Your task to perform on an android device: change alarm snooze length Image 0: 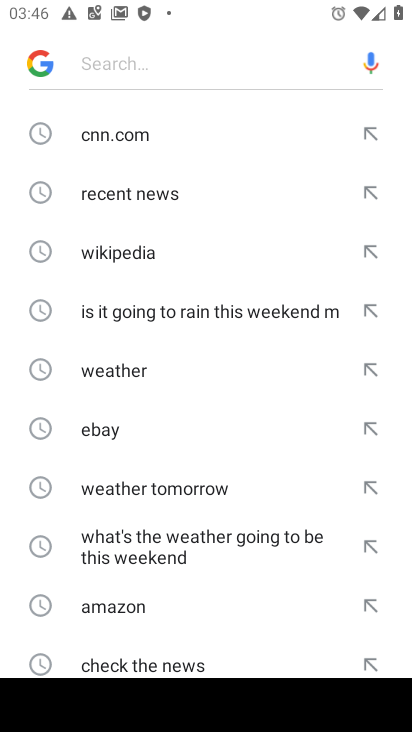
Step 0: press home button
Your task to perform on an android device: change alarm snooze length Image 1: 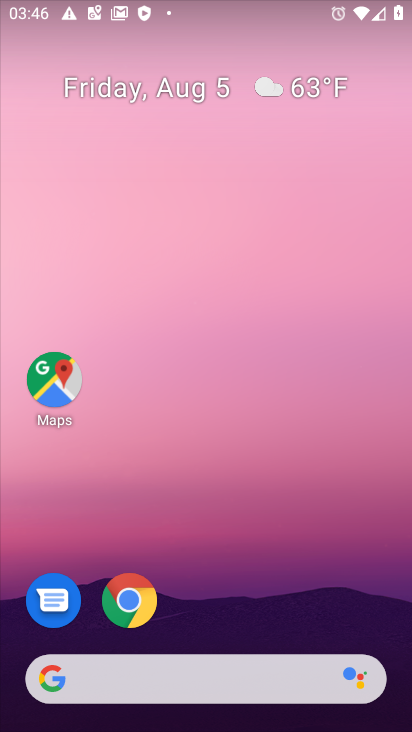
Step 1: drag from (190, 679) to (281, 130)
Your task to perform on an android device: change alarm snooze length Image 2: 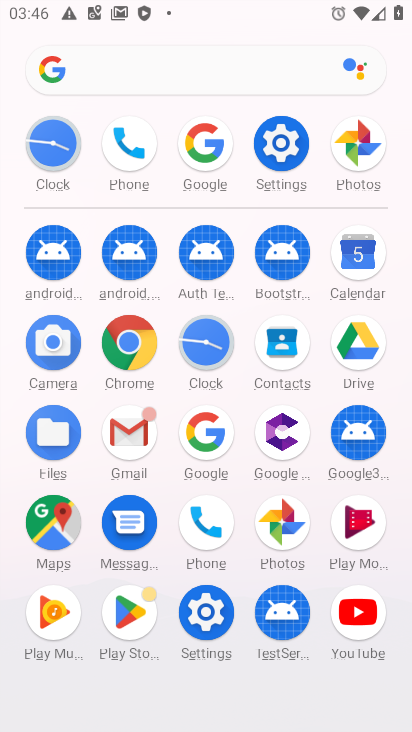
Step 2: click (55, 144)
Your task to perform on an android device: change alarm snooze length Image 3: 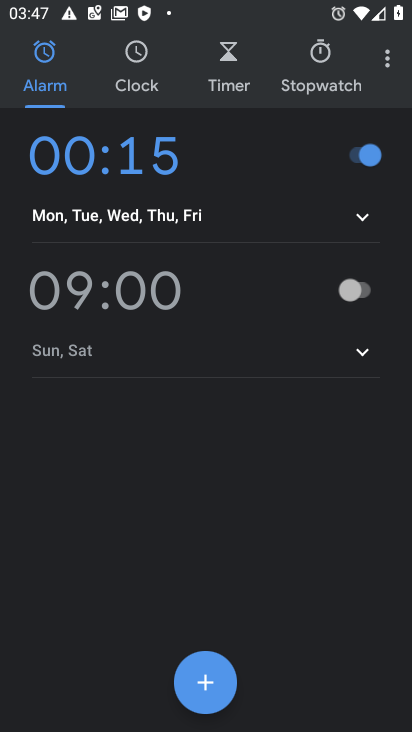
Step 3: click (384, 62)
Your task to perform on an android device: change alarm snooze length Image 4: 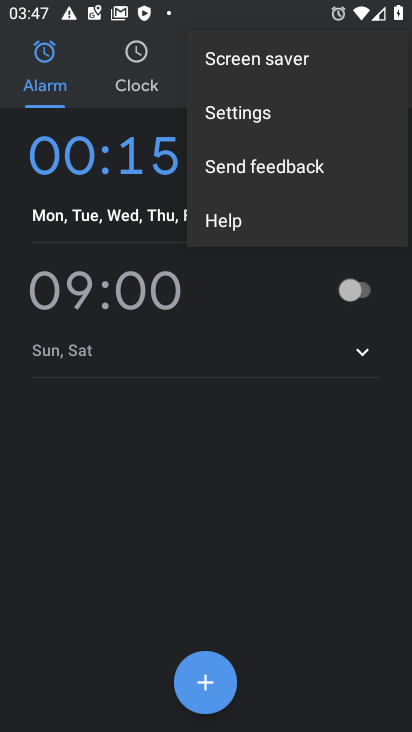
Step 4: click (262, 109)
Your task to perform on an android device: change alarm snooze length Image 5: 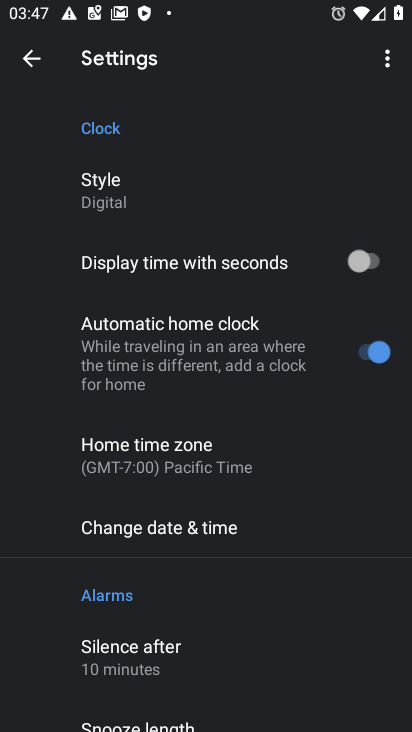
Step 5: drag from (219, 632) to (205, 388)
Your task to perform on an android device: change alarm snooze length Image 6: 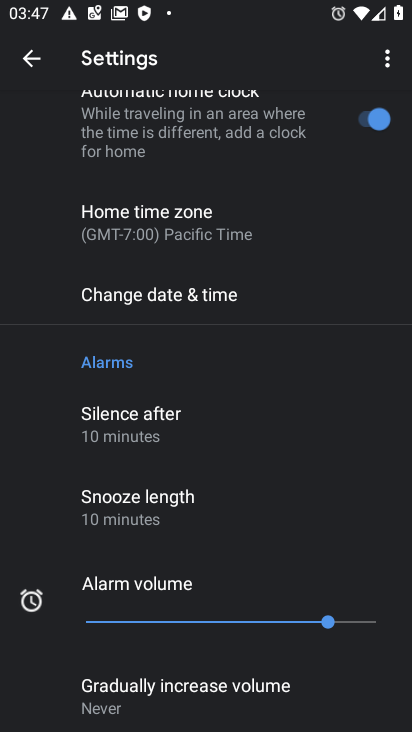
Step 6: click (165, 507)
Your task to perform on an android device: change alarm snooze length Image 7: 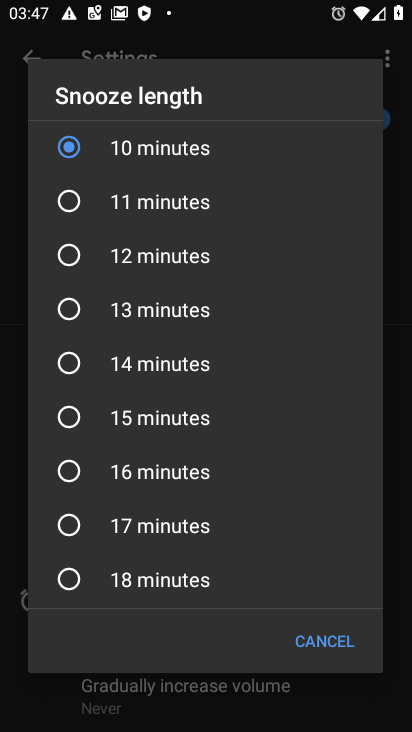
Step 7: click (70, 475)
Your task to perform on an android device: change alarm snooze length Image 8: 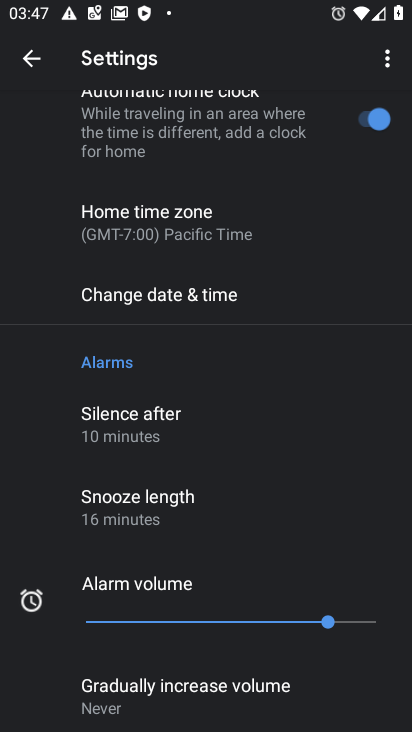
Step 8: task complete